Your task to perform on an android device: What's the latest video from Gameranx? Image 0: 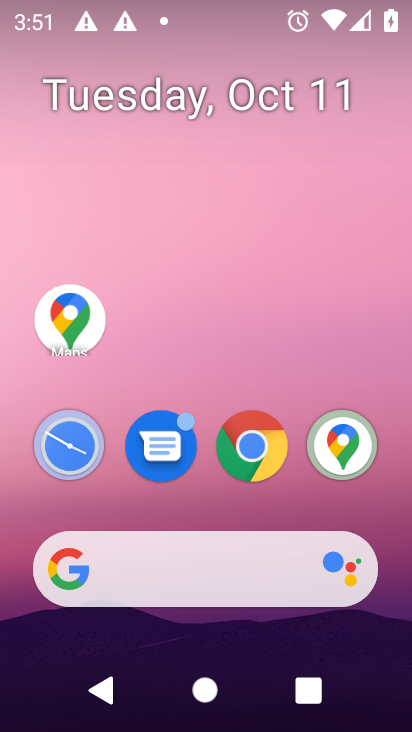
Step 0: drag from (310, 506) to (307, 4)
Your task to perform on an android device: What's the latest video from Gameranx? Image 1: 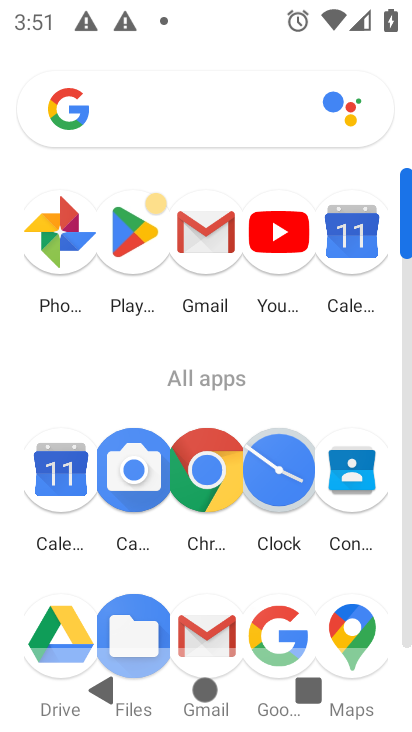
Step 1: click (272, 233)
Your task to perform on an android device: What's the latest video from Gameranx? Image 2: 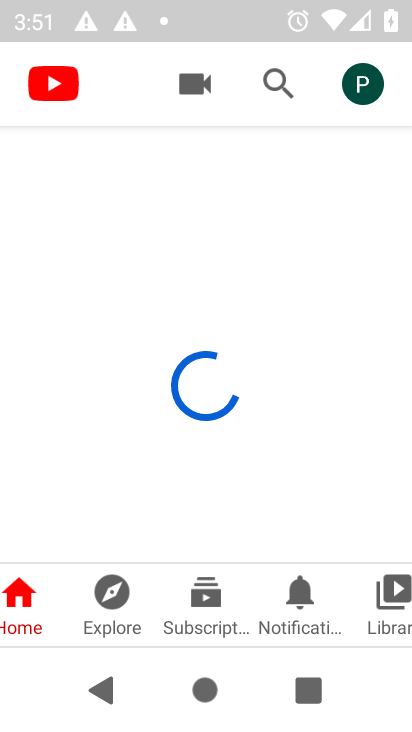
Step 2: click (280, 76)
Your task to perform on an android device: What's the latest video from Gameranx? Image 3: 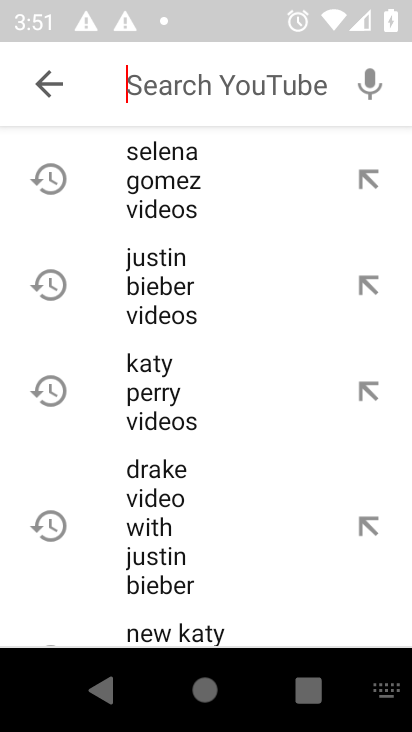
Step 3: type "Gameranx latest video"
Your task to perform on an android device: What's the latest video from Gameranx? Image 4: 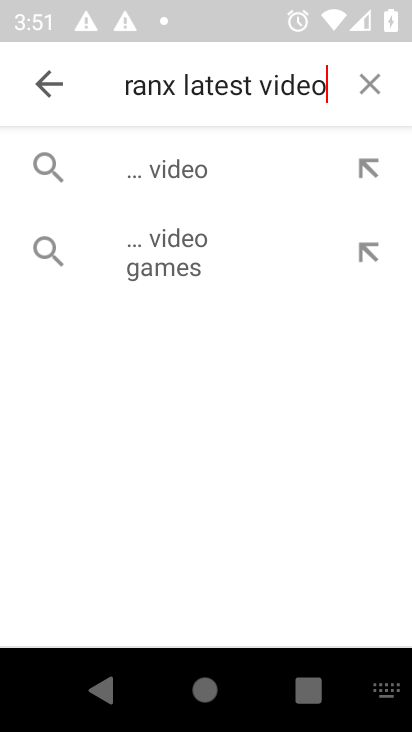
Step 4: click (182, 172)
Your task to perform on an android device: What's the latest video from Gameranx? Image 5: 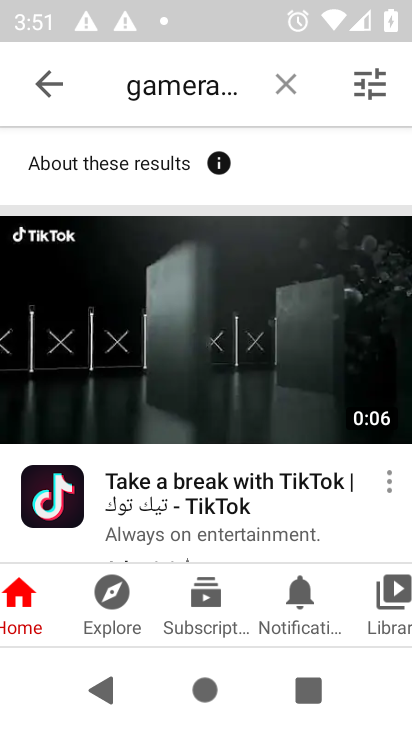
Step 5: drag from (182, 448) to (202, 273)
Your task to perform on an android device: What's the latest video from Gameranx? Image 6: 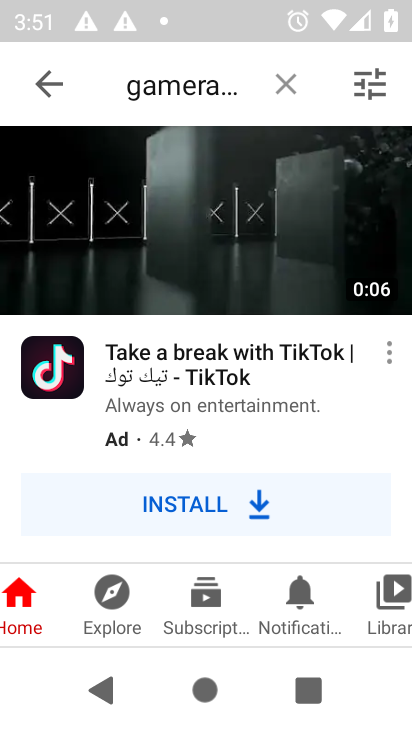
Step 6: drag from (195, 469) to (215, 141)
Your task to perform on an android device: What's the latest video from Gameranx? Image 7: 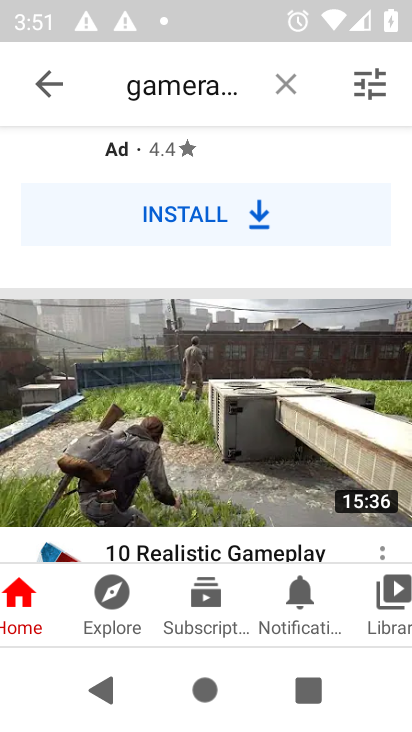
Step 7: drag from (184, 470) to (202, 231)
Your task to perform on an android device: What's the latest video from Gameranx? Image 8: 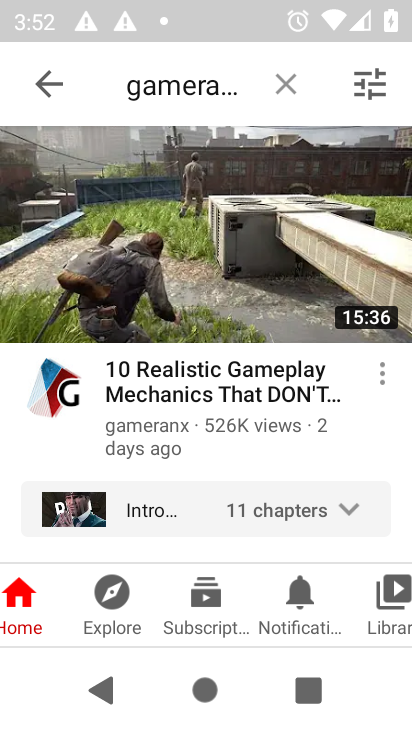
Step 8: click (172, 251)
Your task to perform on an android device: What's the latest video from Gameranx? Image 9: 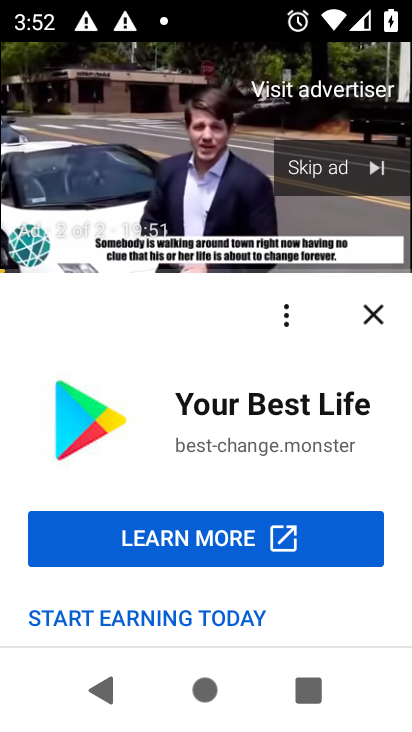
Step 9: click (361, 171)
Your task to perform on an android device: What's the latest video from Gameranx? Image 10: 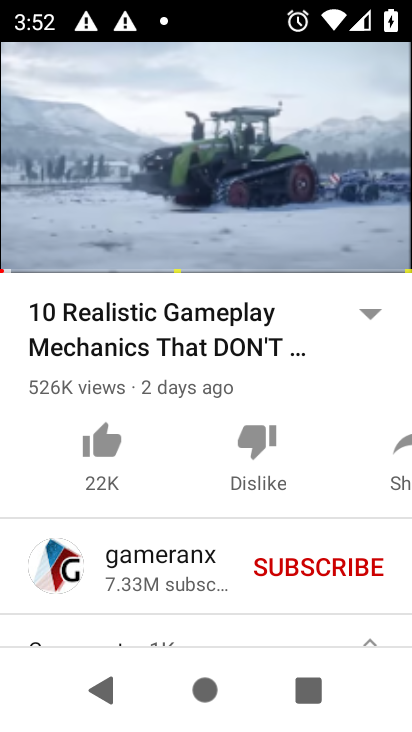
Step 10: click (218, 188)
Your task to perform on an android device: What's the latest video from Gameranx? Image 11: 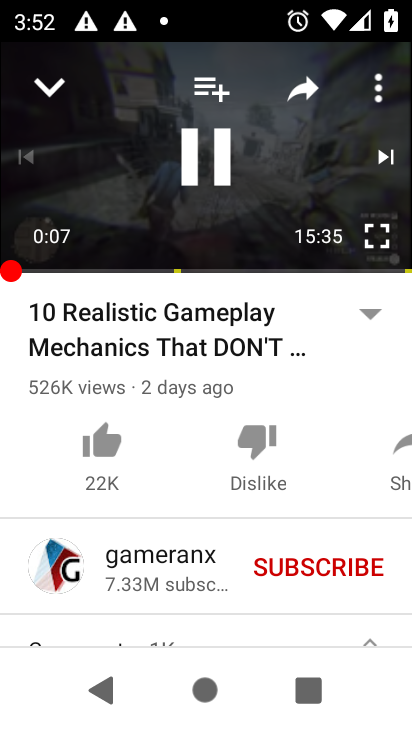
Step 11: click (197, 169)
Your task to perform on an android device: What's the latest video from Gameranx? Image 12: 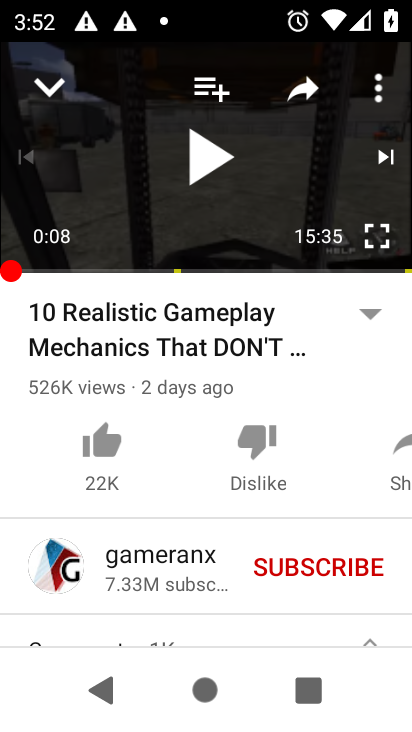
Step 12: task complete